Your task to perform on an android device: turn on improve location accuracy Image 0: 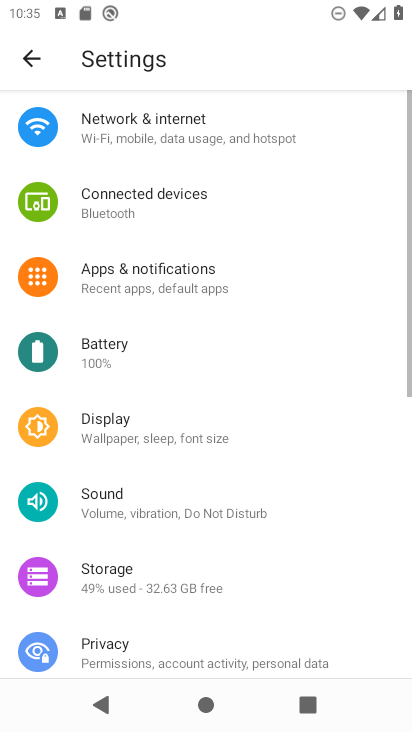
Step 0: drag from (102, 656) to (206, 177)
Your task to perform on an android device: turn on improve location accuracy Image 1: 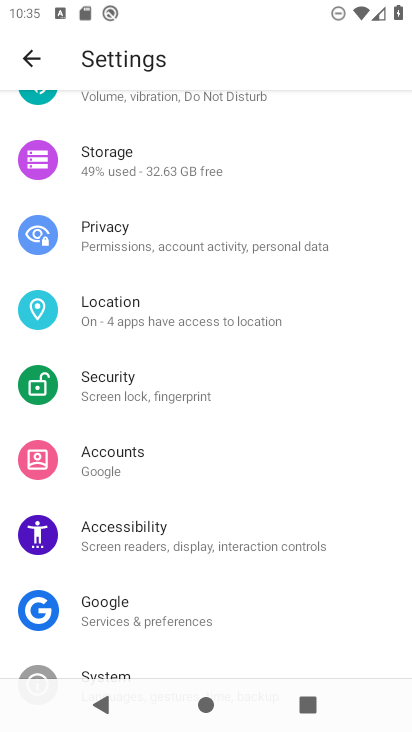
Step 1: click (119, 317)
Your task to perform on an android device: turn on improve location accuracy Image 2: 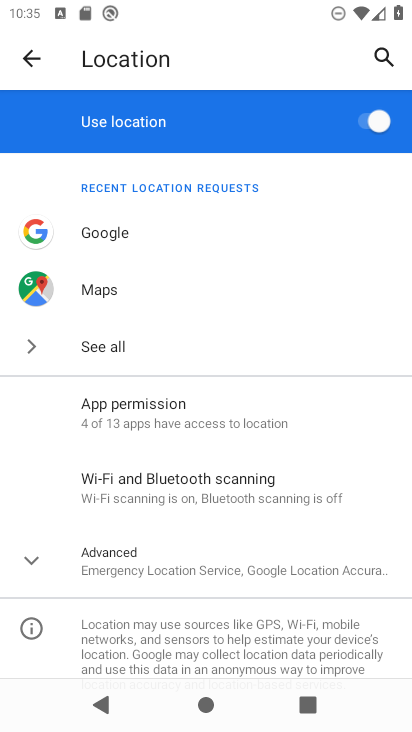
Step 2: click (288, 541)
Your task to perform on an android device: turn on improve location accuracy Image 3: 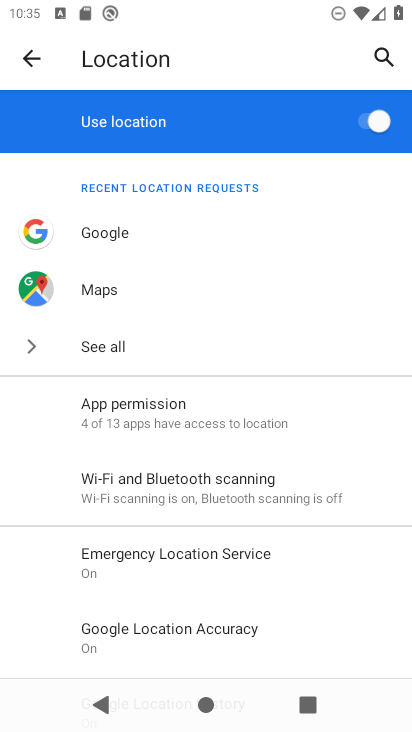
Step 3: click (219, 626)
Your task to perform on an android device: turn on improve location accuracy Image 4: 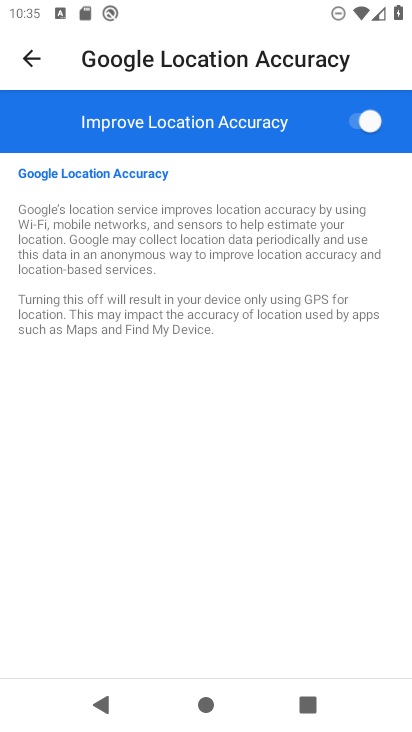
Step 4: task complete